Your task to perform on an android device: Go to privacy settings Image 0: 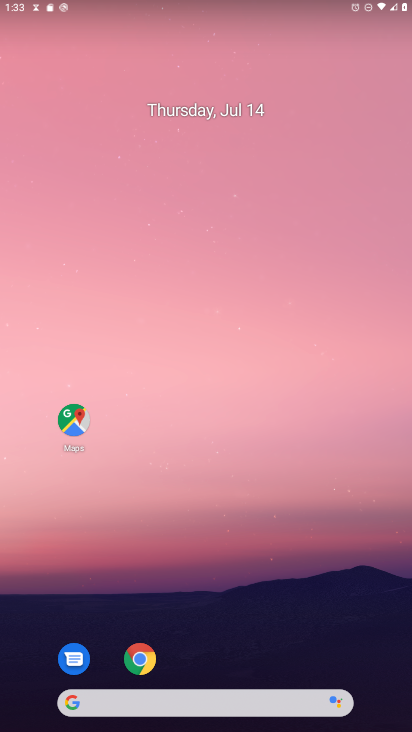
Step 0: drag from (52, 666) to (242, 263)
Your task to perform on an android device: Go to privacy settings Image 1: 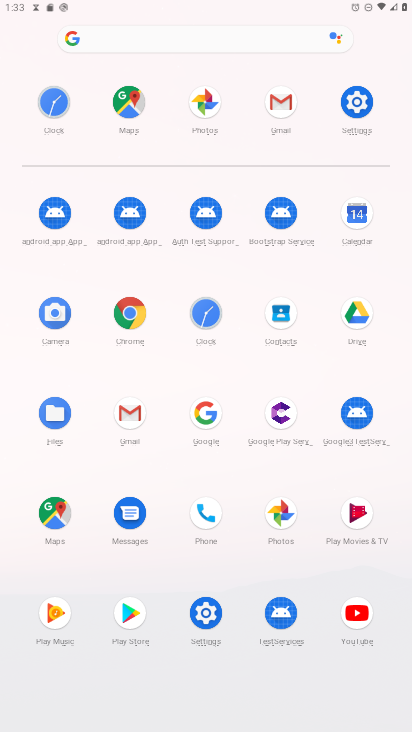
Step 1: click (203, 625)
Your task to perform on an android device: Go to privacy settings Image 2: 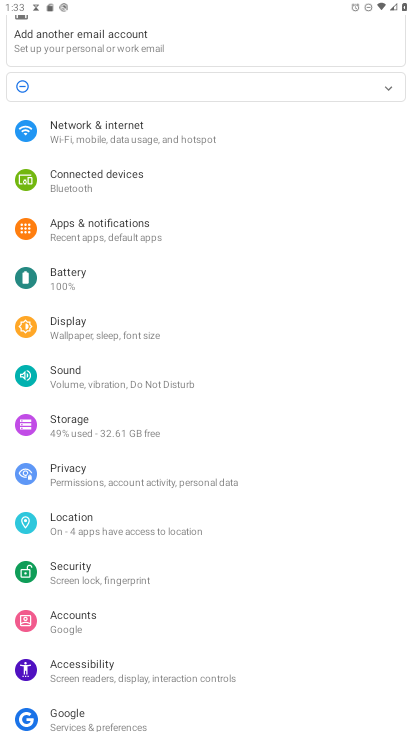
Step 2: click (93, 474)
Your task to perform on an android device: Go to privacy settings Image 3: 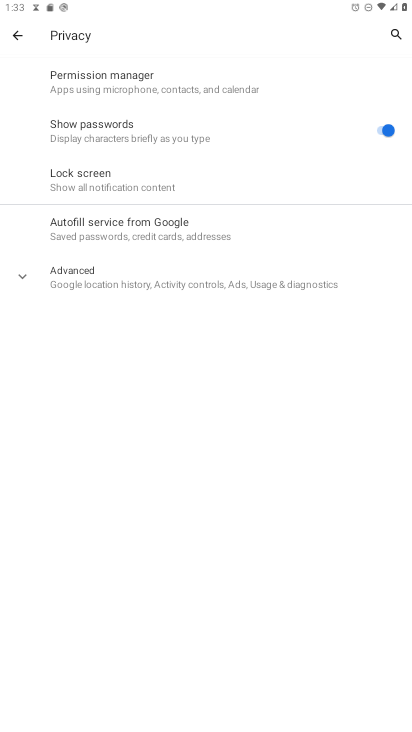
Step 3: task complete